Your task to perform on an android device: toggle priority inbox in the gmail app Image 0: 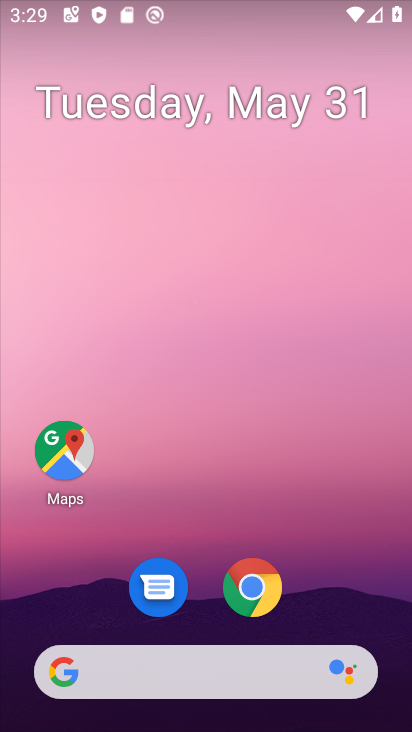
Step 0: drag from (346, 612) to (339, 100)
Your task to perform on an android device: toggle priority inbox in the gmail app Image 1: 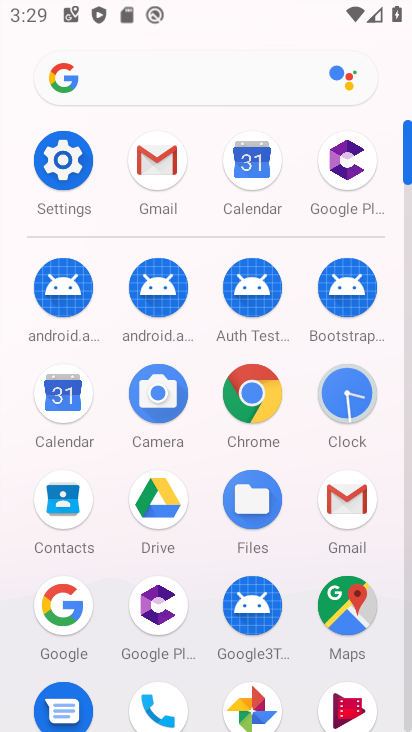
Step 1: click (348, 501)
Your task to perform on an android device: toggle priority inbox in the gmail app Image 2: 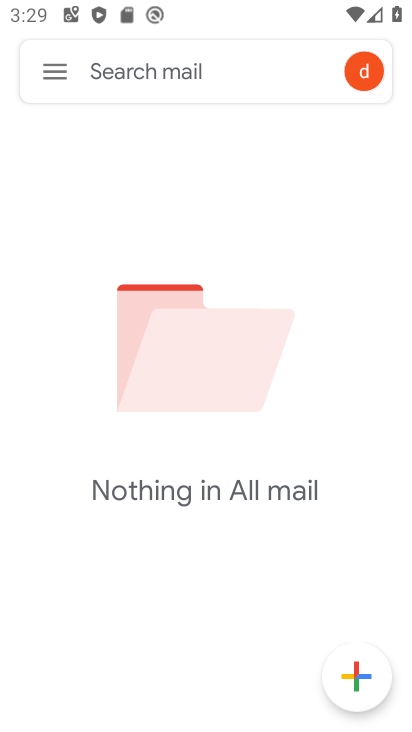
Step 2: click (58, 82)
Your task to perform on an android device: toggle priority inbox in the gmail app Image 3: 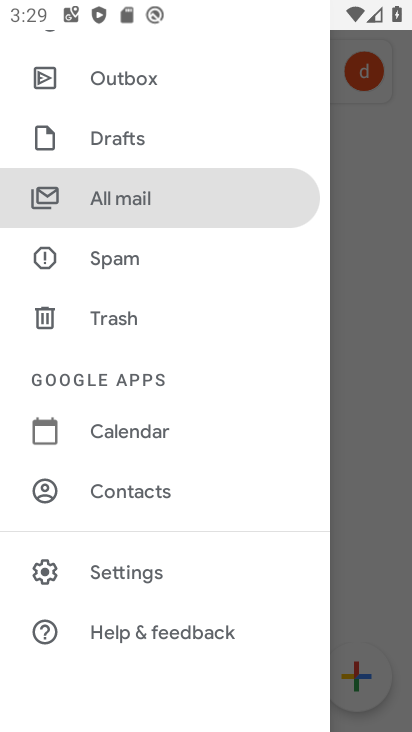
Step 3: click (114, 567)
Your task to perform on an android device: toggle priority inbox in the gmail app Image 4: 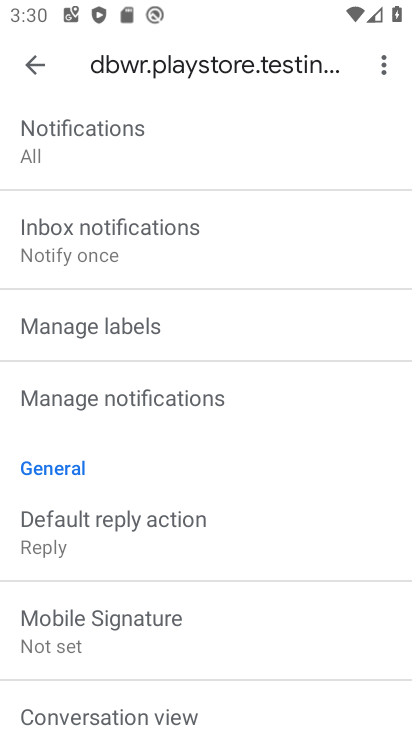
Step 4: drag from (170, 319) to (219, 709)
Your task to perform on an android device: toggle priority inbox in the gmail app Image 5: 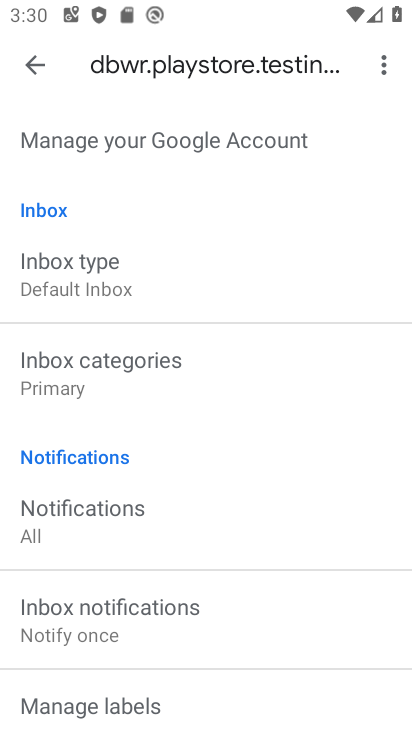
Step 5: click (108, 284)
Your task to perform on an android device: toggle priority inbox in the gmail app Image 6: 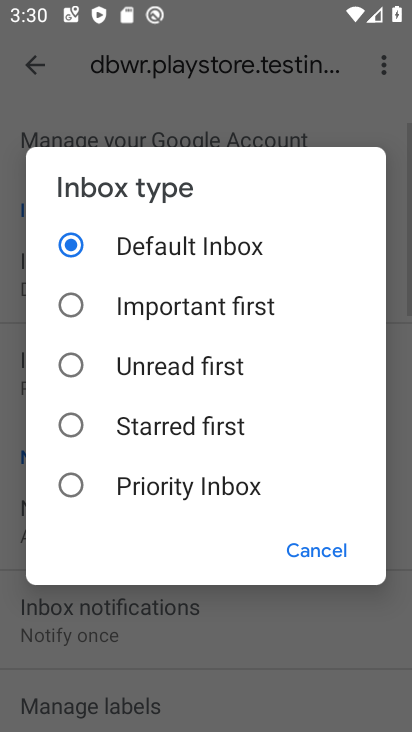
Step 6: click (163, 485)
Your task to perform on an android device: toggle priority inbox in the gmail app Image 7: 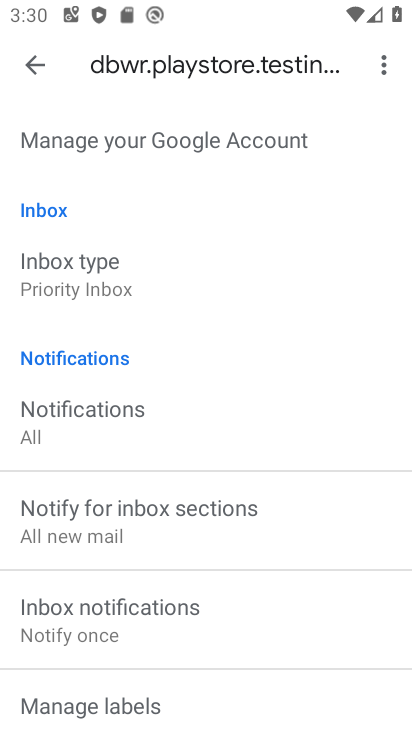
Step 7: task complete